Your task to perform on an android device: toggle improve location accuracy Image 0: 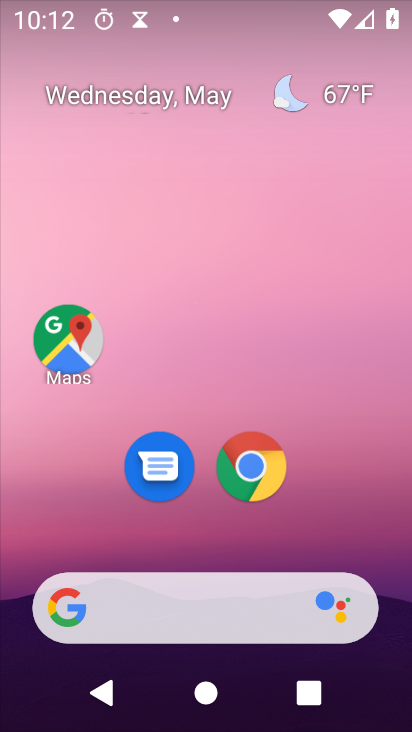
Step 0: drag from (286, 513) to (257, 52)
Your task to perform on an android device: toggle improve location accuracy Image 1: 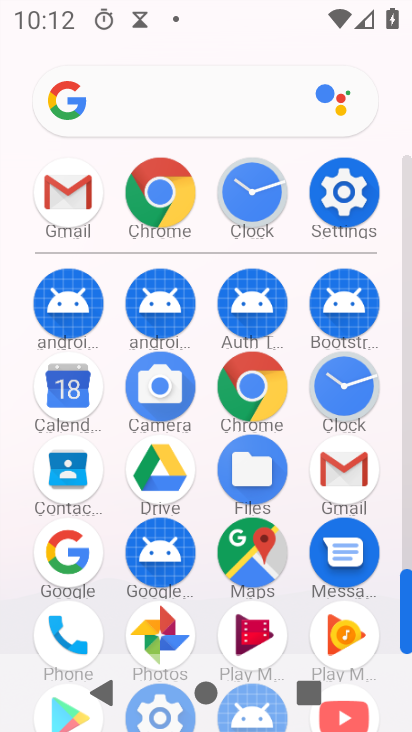
Step 1: click (354, 199)
Your task to perform on an android device: toggle improve location accuracy Image 2: 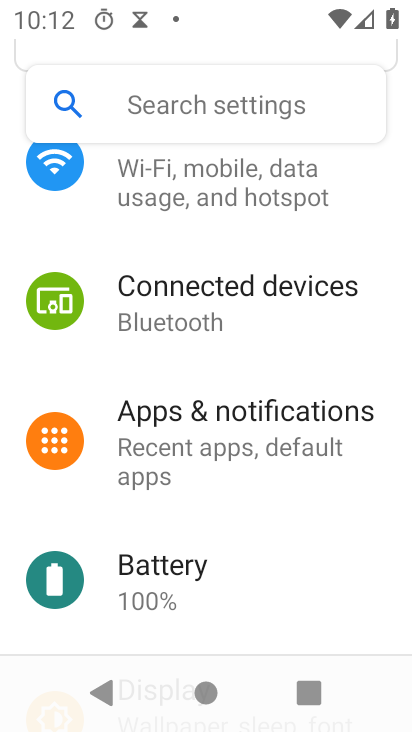
Step 2: drag from (202, 488) to (197, 259)
Your task to perform on an android device: toggle improve location accuracy Image 3: 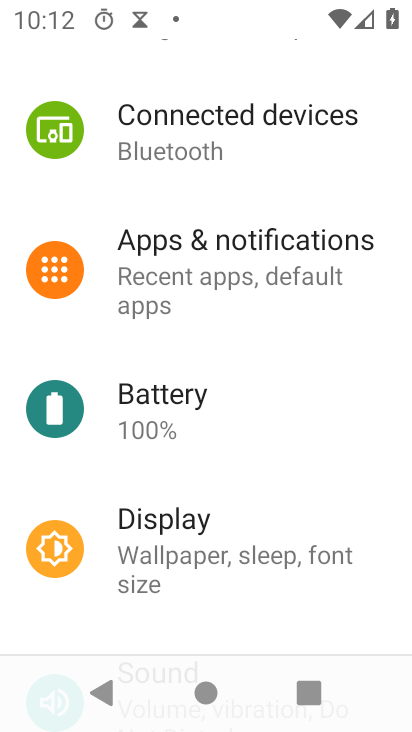
Step 3: drag from (193, 564) to (221, 252)
Your task to perform on an android device: toggle improve location accuracy Image 4: 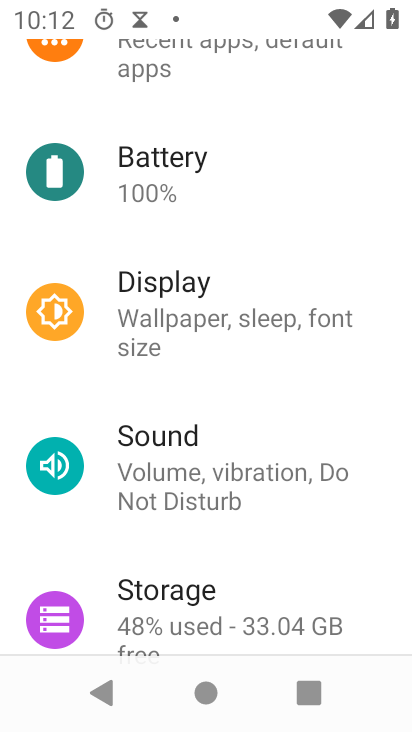
Step 4: drag from (201, 545) to (251, 264)
Your task to perform on an android device: toggle improve location accuracy Image 5: 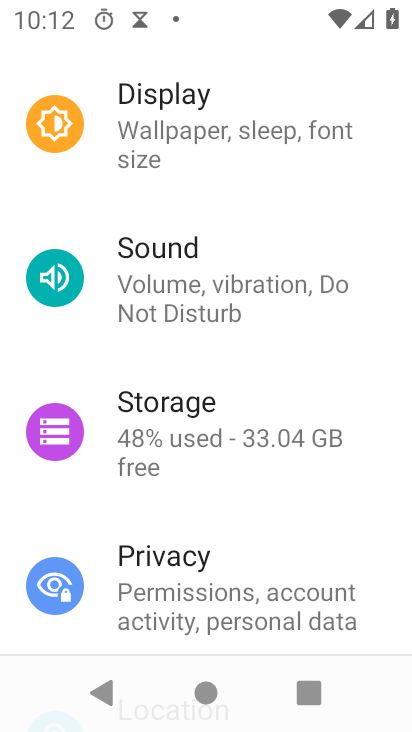
Step 5: drag from (169, 516) to (197, 283)
Your task to perform on an android device: toggle improve location accuracy Image 6: 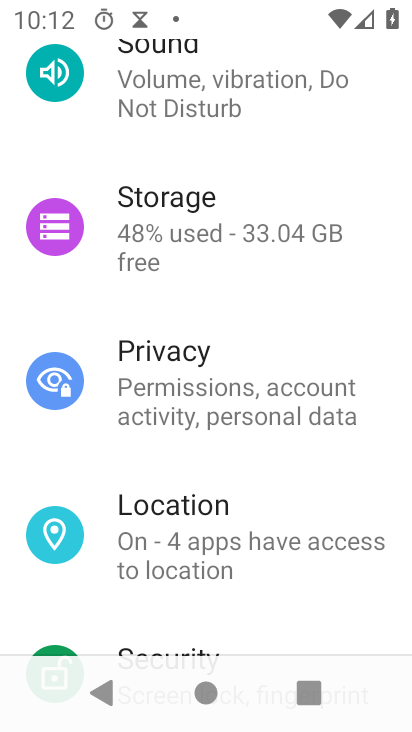
Step 6: click (149, 553)
Your task to perform on an android device: toggle improve location accuracy Image 7: 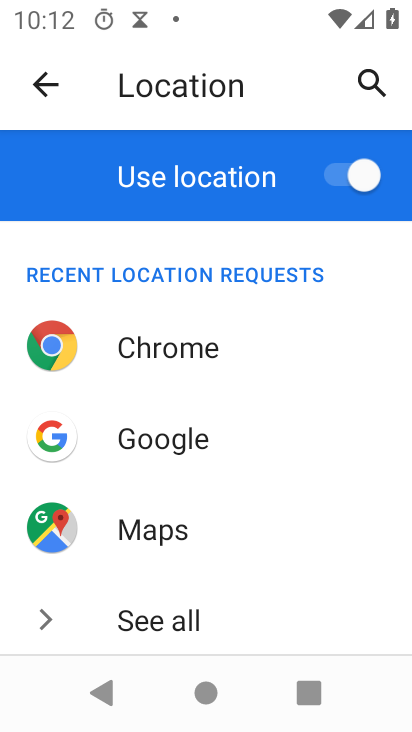
Step 7: drag from (226, 599) to (202, 518)
Your task to perform on an android device: toggle improve location accuracy Image 8: 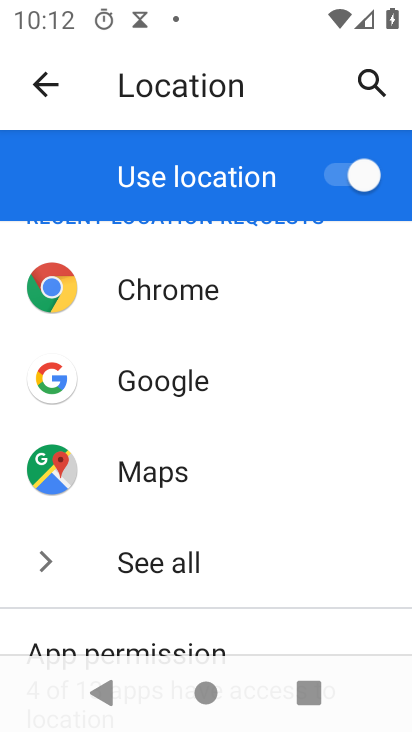
Step 8: drag from (228, 580) to (233, 294)
Your task to perform on an android device: toggle improve location accuracy Image 9: 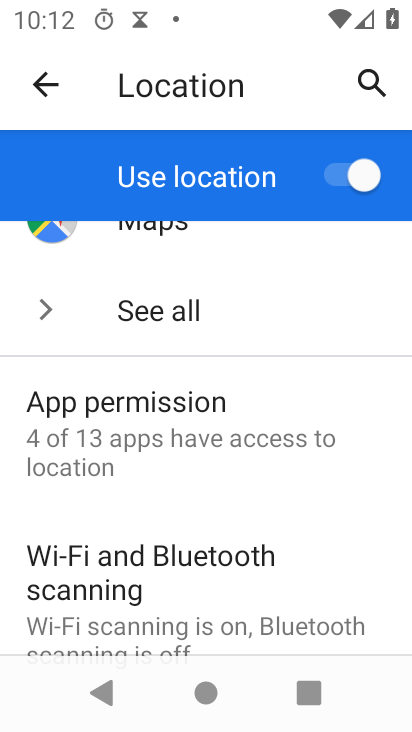
Step 9: drag from (210, 605) to (218, 392)
Your task to perform on an android device: toggle improve location accuracy Image 10: 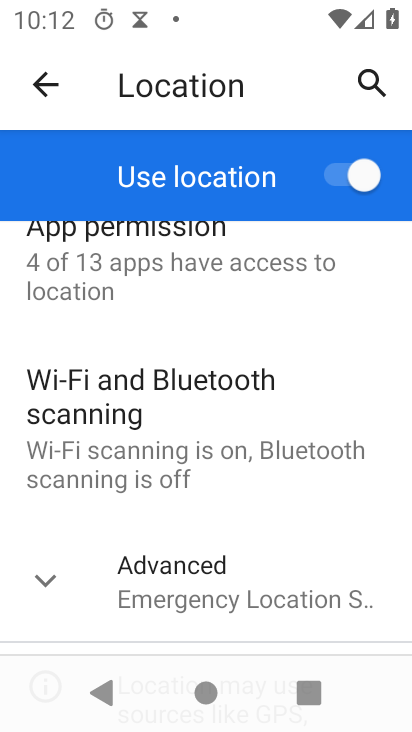
Step 10: click (182, 592)
Your task to perform on an android device: toggle improve location accuracy Image 11: 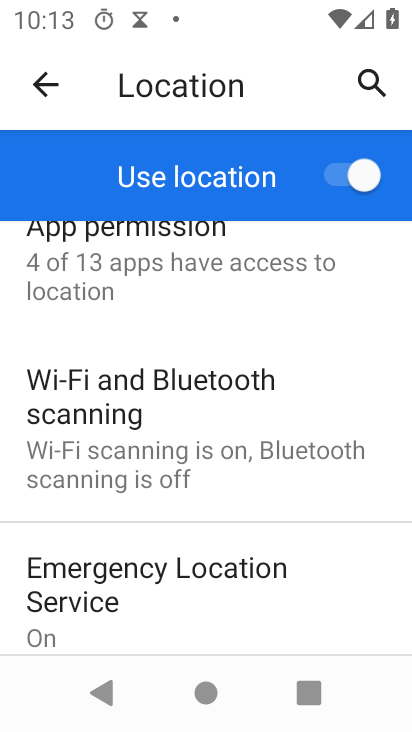
Step 11: drag from (201, 602) to (199, 417)
Your task to perform on an android device: toggle improve location accuracy Image 12: 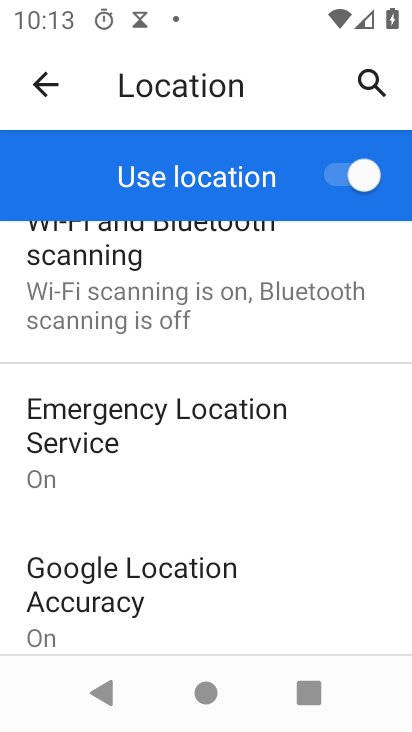
Step 12: click (183, 575)
Your task to perform on an android device: toggle improve location accuracy Image 13: 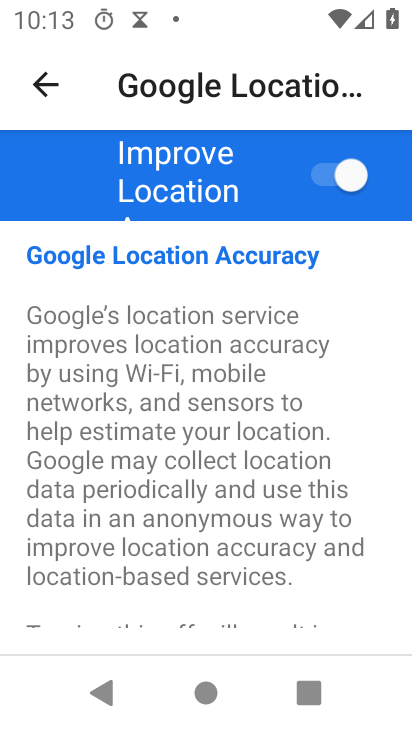
Step 13: click (321, 188)
Your task to perform on an android device: toggle improve location accuracy Image 14: 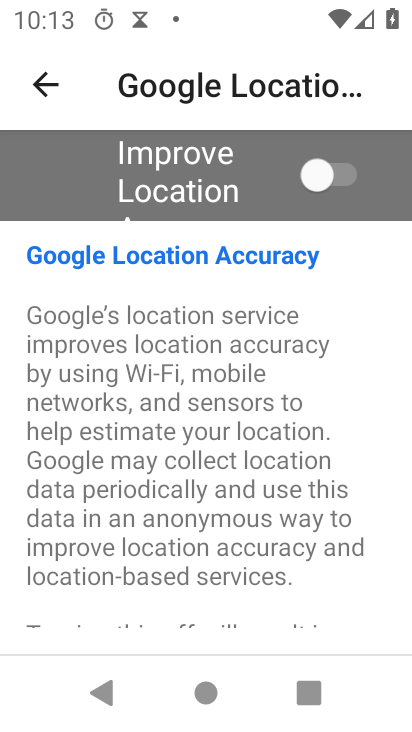
Step 14: task complete